Your task to perform on an android device: clear all cookies in the chrome app Image 0: 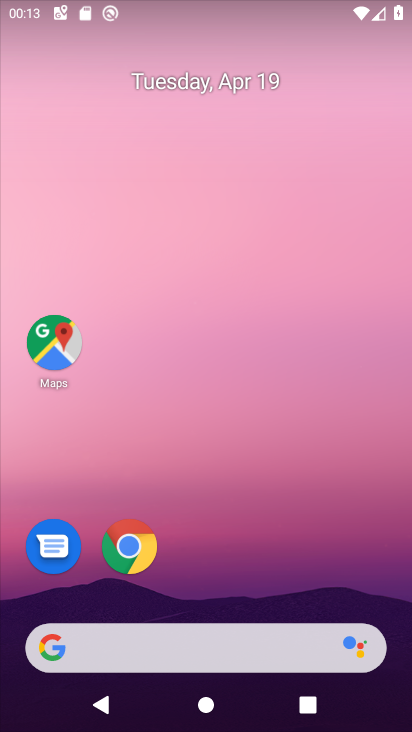
Step 0: drag from (200, 547) to (129, 17)
Your task to perform on an android device: clear all cookies in the chrome app Image 1: 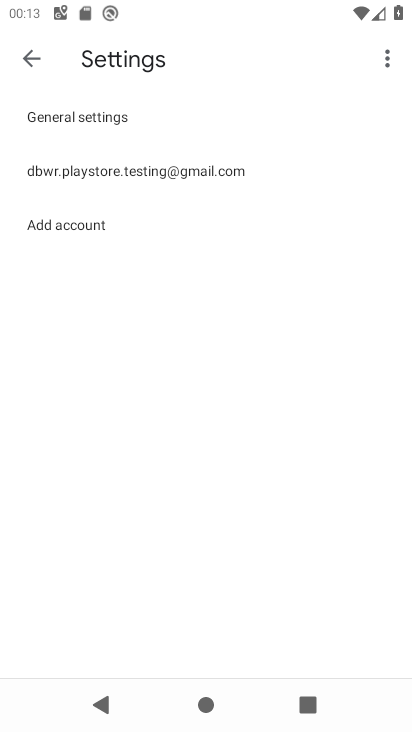
Step 1: press home button
Your task to perform on an android device: clear all cookies in the chrome app Image 2: 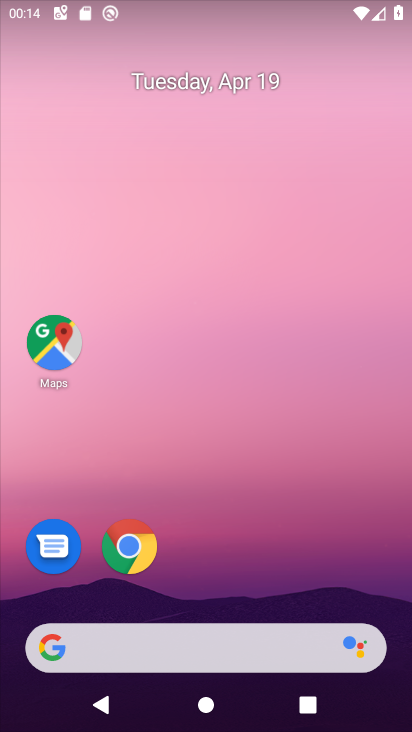
Step 2: click (127, 549)
Your task to perform on an android device: clear all cookies in the chrome app Image 3: 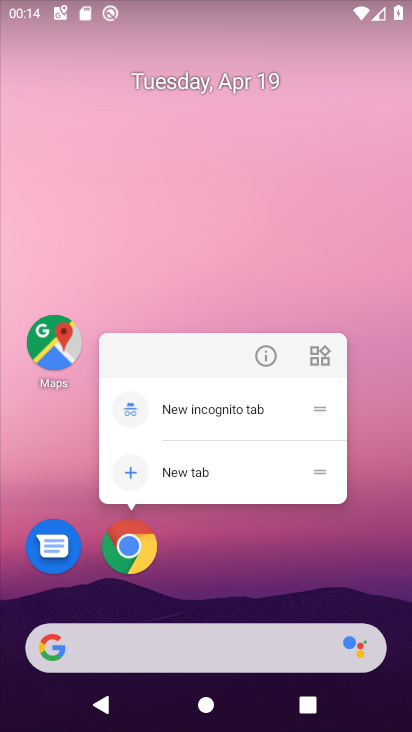
Step 3: click (253, 541)
Your task to perform on an android device: clear all cookies in the chrome app Image 4: 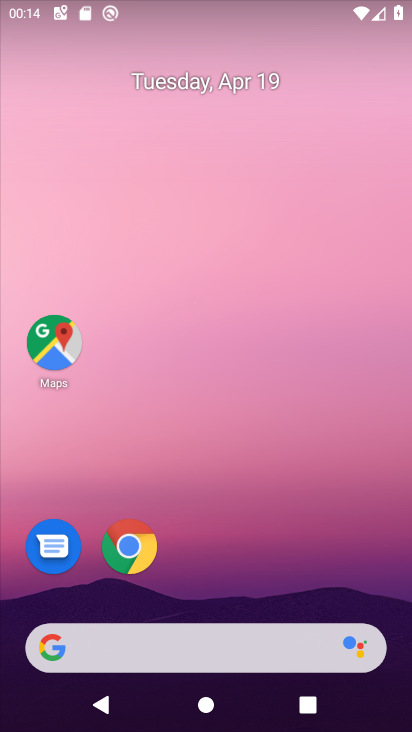
Step 4: click (123, 539)
Your task to perform on an android device: clear all cookies in the chrome app Image 5: 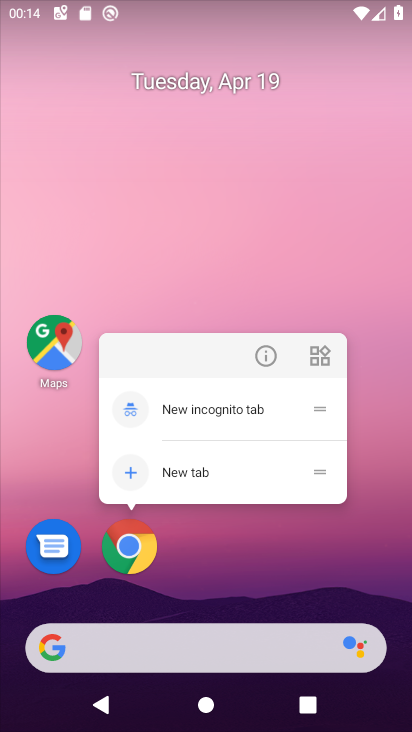
Step 5: click (209, 554)
Your task to perform on an android device: clear all cookies in the chrome app Image 6: 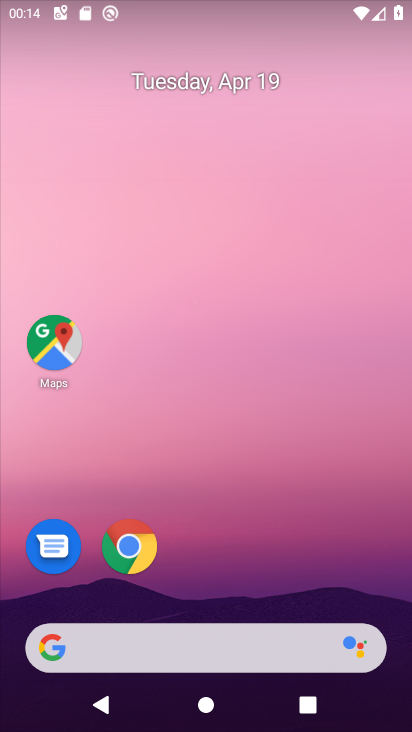
Step 6: drag from (233, 590) to (225, 105)
Your task to perform on an android device: clear all cookies in the chrome app Image 7: 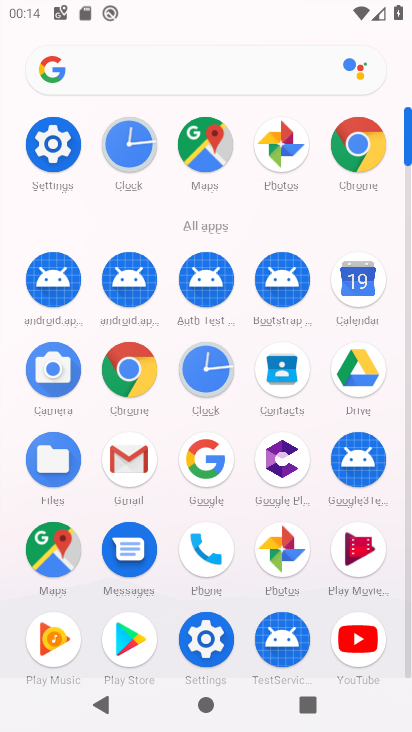
Step 7: click (354, 138)
Your task to perform on an android device: clear all cookies in the chrome app Image 8: 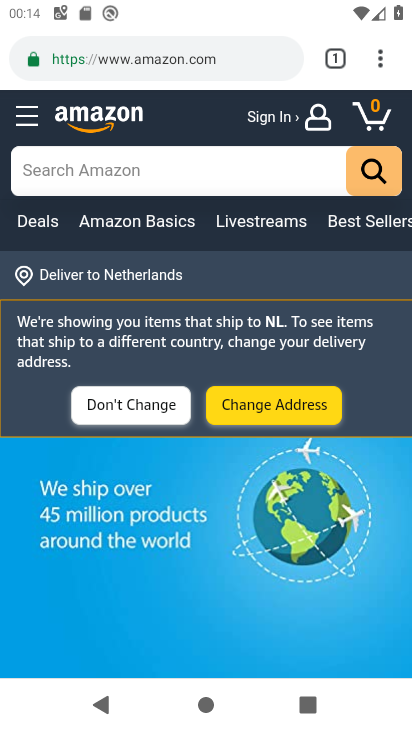
Step 8: click (378, 49)
Your task to perform on an android device: clear all cookies in the chrome app Image 9: 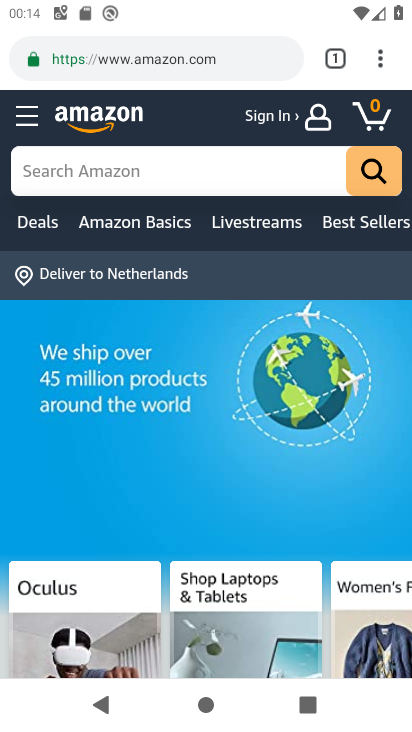
Step 9: click (376, 59)
Your task to perform on an android device: clear all cookies in the chrome app Image 10: 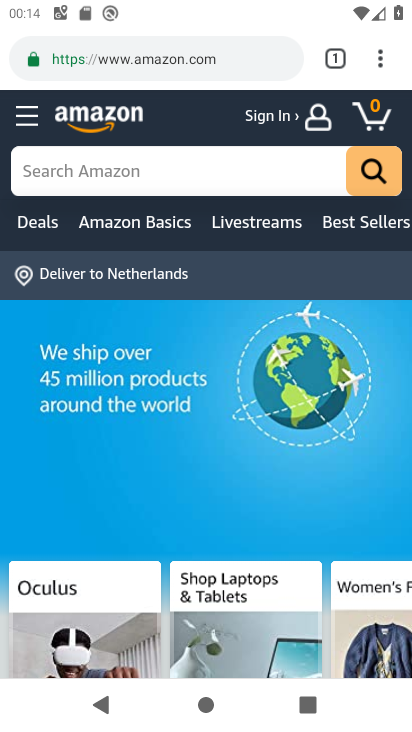
Step 10: click (380, 55)
Your task to perform on an android device: clear all cookies in the chrome app Image 11: 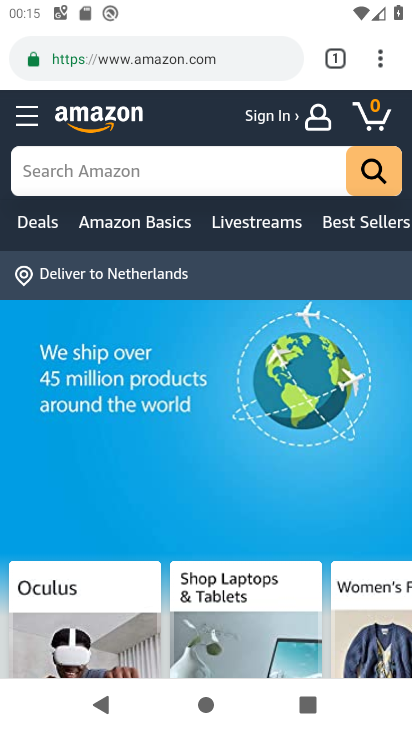
Step 11: click (372, 54)
Your task to perform on an android device: clear all cookies in the chrome app Image 12: 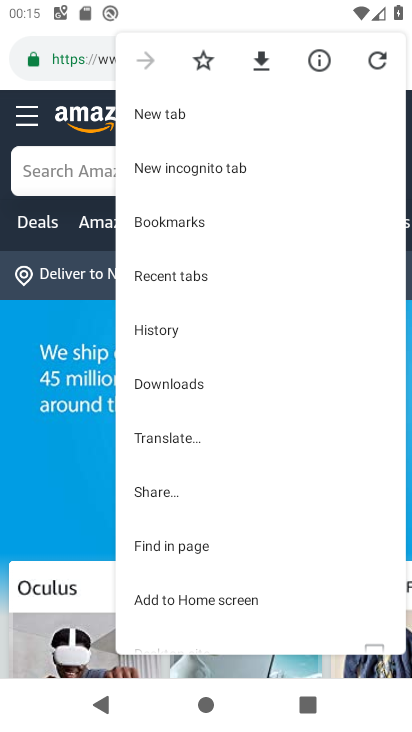
Step 12: click (184, 331)
Your task to perform on an android device: clear all cookies in the chrome app Image 13: 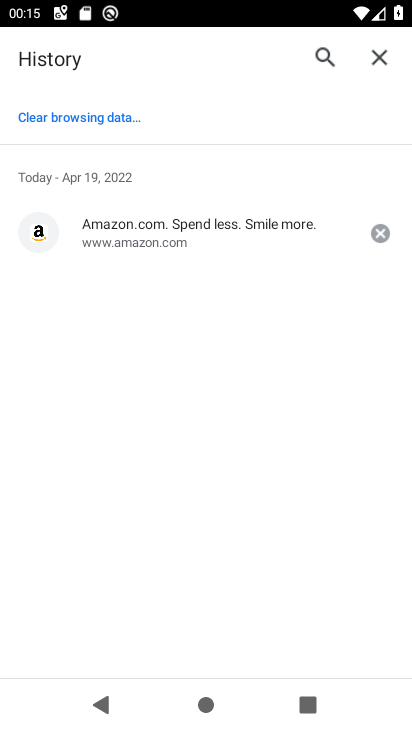
Step 13: click (76, 114)
Your task to perform on an android device: clear all cookies in the chrome app Image 14: 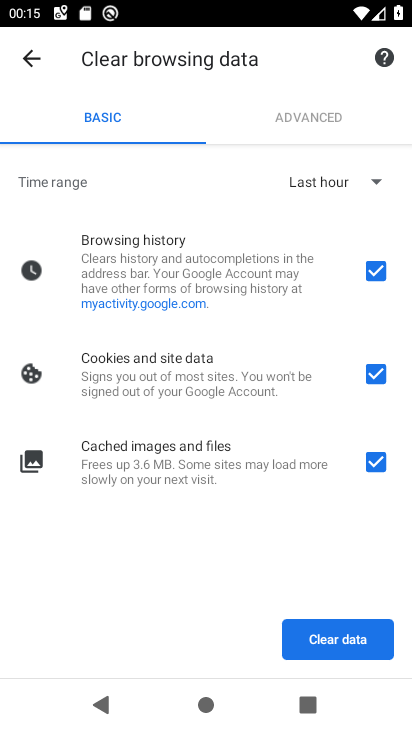
Step 14: click (376, 268)
Your task to perform on an android device: clear all cookies in the chrome app Image 15: 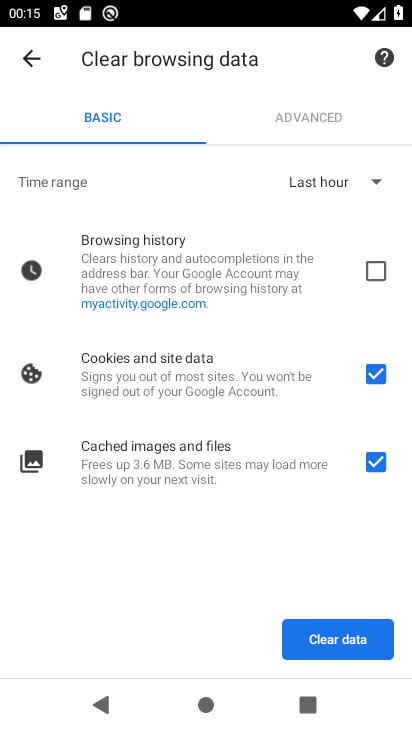
Step 15: click (371, 458)
Your task to perform on an android device: clear all cookies in the chrome app Image 16: 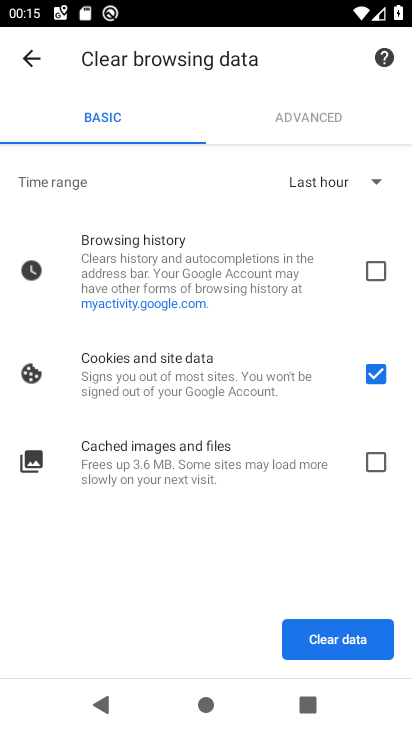
Step 16: click (340, 638)
Your task to perform on an android device: clear all cookies in the chrome app Image 17: 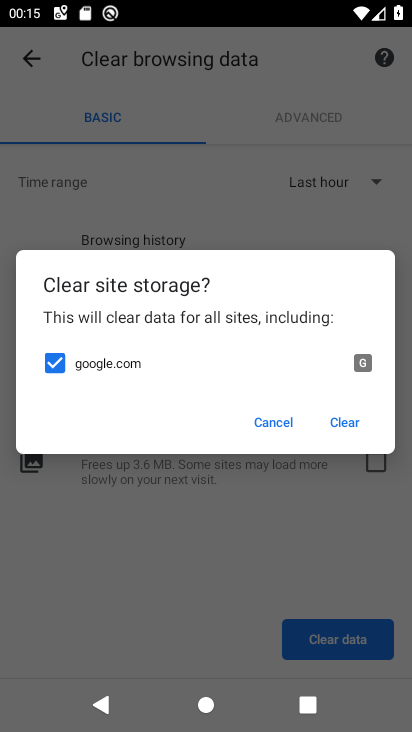
Step 17: click (353, 422)
Your task to perform on an android device: clear all cookies in the chrome app Image 18: 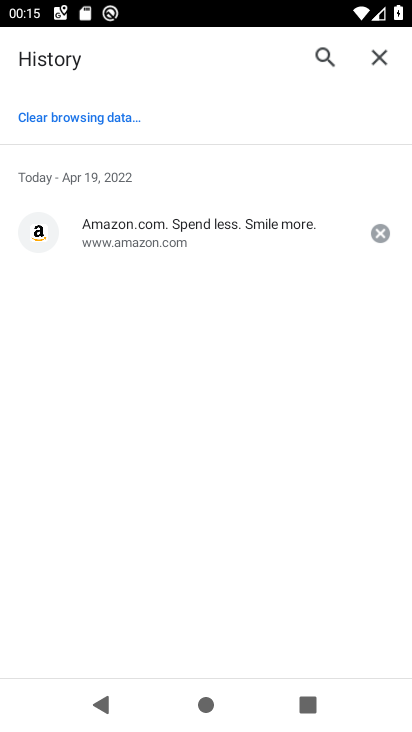
Step 18: task complete